Your task to perform on an android device: change the clock style Image 0: 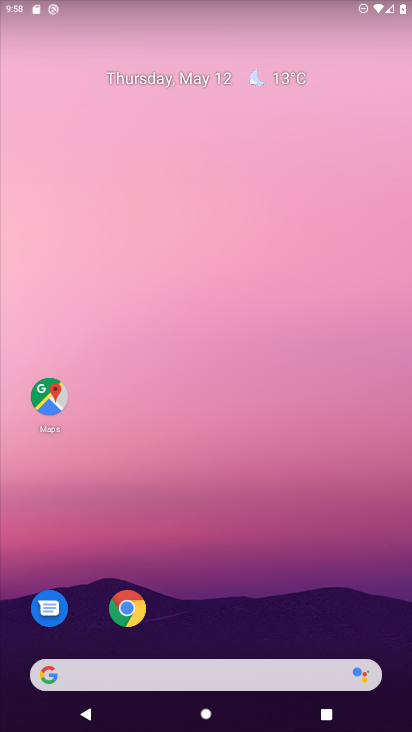
Step 0: drag from (221, 605) to (234, 187)
Your task to perform on an android device: change the clock style Image 1: 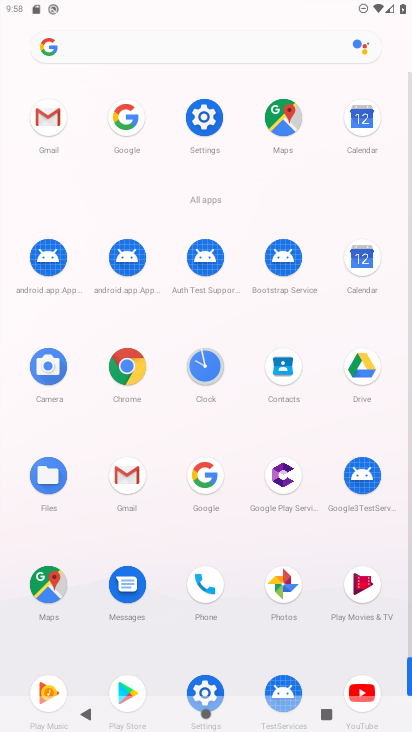
Step 1: click (210, 372)
Your task to perform on an android device: change the clock style Image 2: 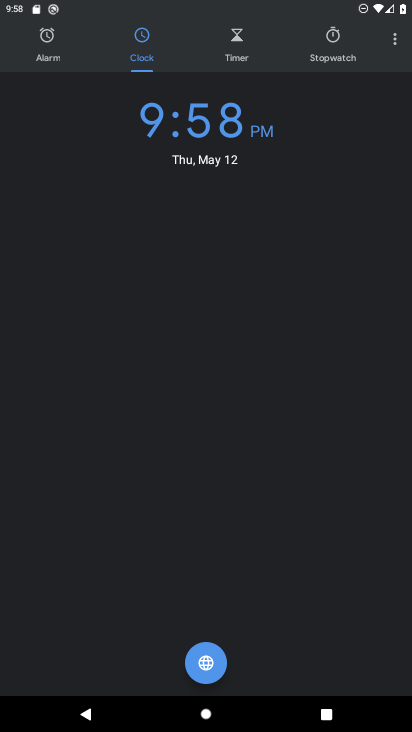
Step 2: click (389, 34)
Your task to perform on an android device: change the clock style Image 3: 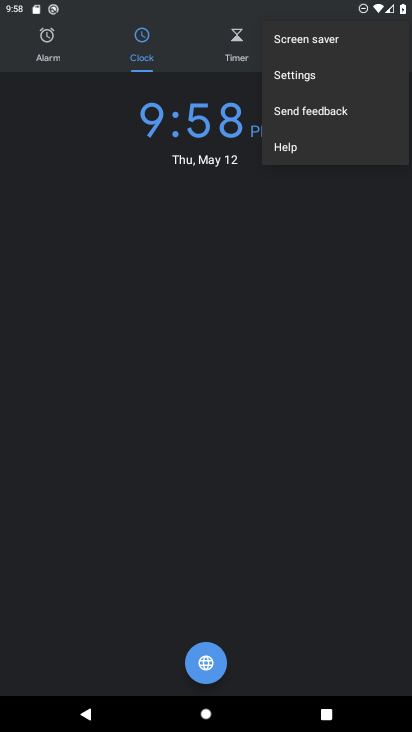
Step 3: click (316, 58)
Your task to perform on an android device: change the clock style Image 4: 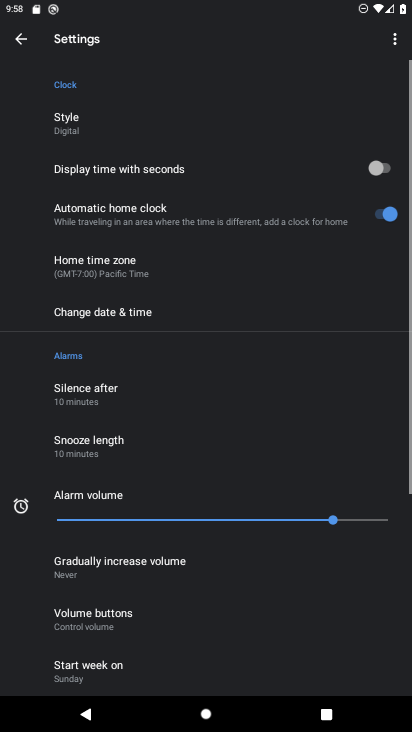
Step 4: click (61, 122)
Your task to perform on an android device: change the clock style Image 5: 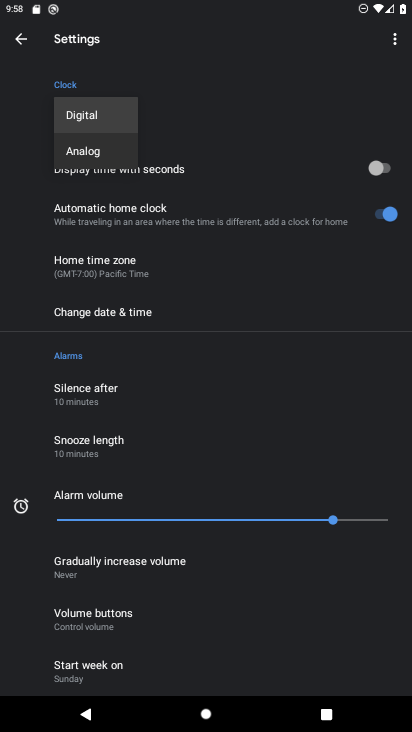
Step 5: click (96, 153)
Your task to perform on an android device: change the clock style Image 6: 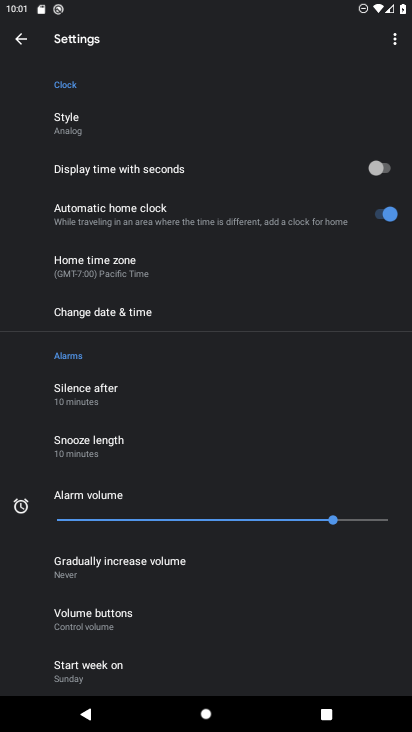
Step 6: task complete